Your task to perform on an android device: check out phone information Image 0: 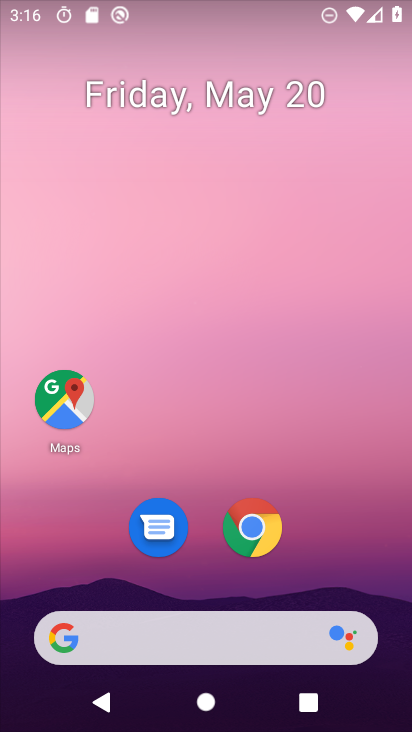
Step 0: drag from (197, 556) to (263, 77)
Your task to perform on an android device: check out phone information Image 1: 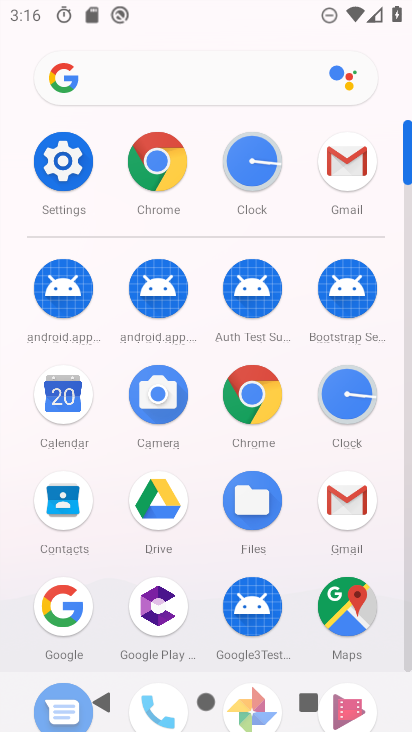
Step 1: click (68, 152)
Your task to perform on an android device: check out phone information Image 2: 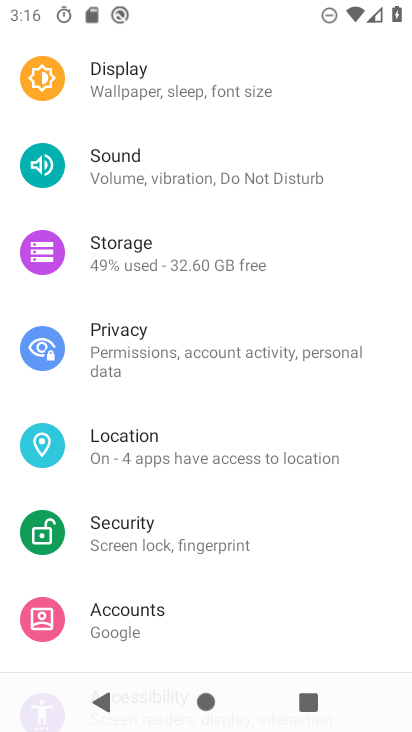
Step 2: drag from (188, 623) to (225, 100)
Your task to perform on an android device: check out phone information Image 3: 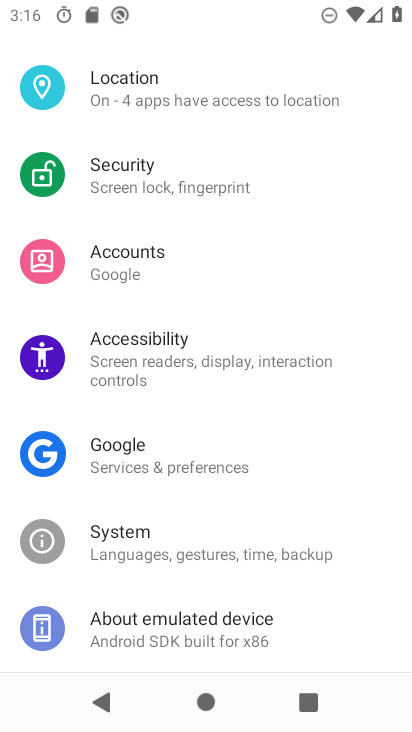
Step 3: drag from (163, 539) to (254, 138)
Your task to perform on an android device: check out phone information Image 4: 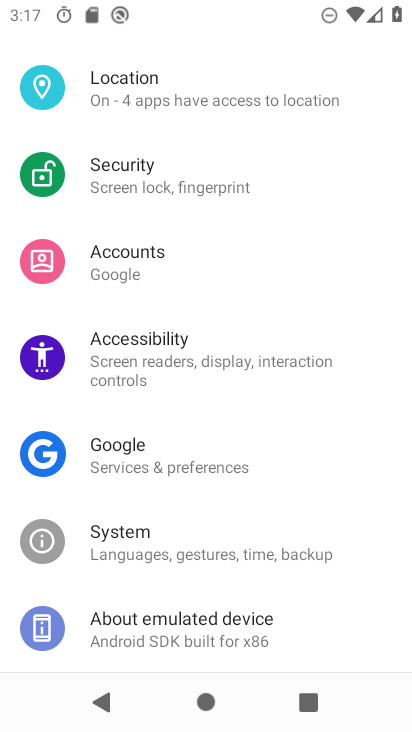
Step 4: drag from (183, 552) to (279, 20)
Your task to perform on an android device: check out phone information Image 5: 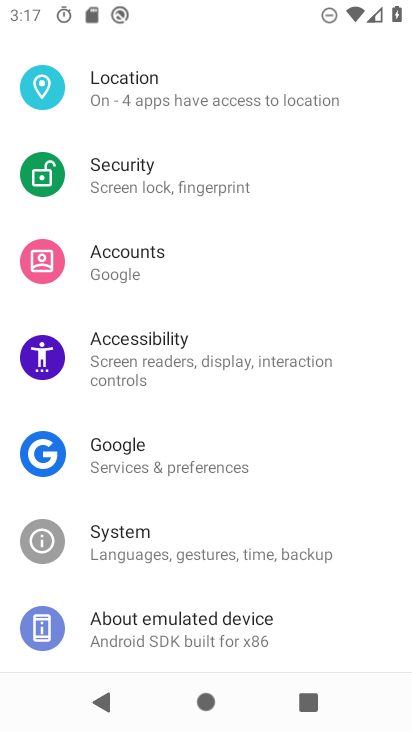
Step 5: click (151, 619)
Your task to perform on an android device: check out phone information Image 6: 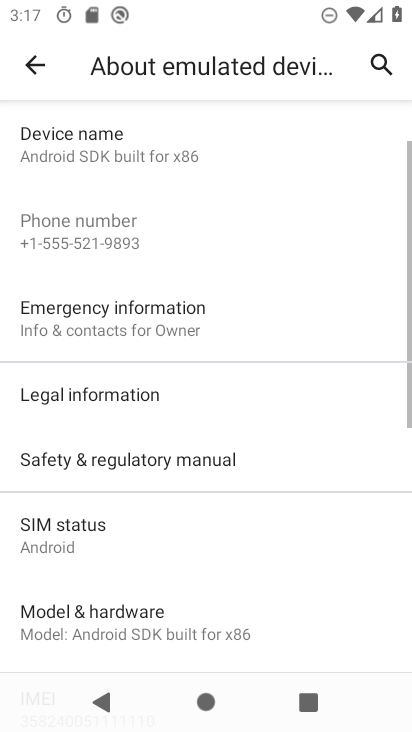
Step 6: task complete